Your task to perform on an android device: empty trash in google photos Image 0: 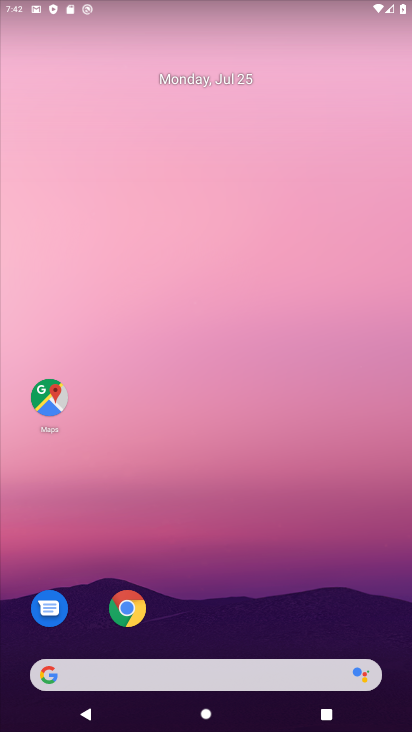
Step 0: drag from (133, 706) to (8, 46)
Your task to perform on an android device: empty trash in google photos Image 1: 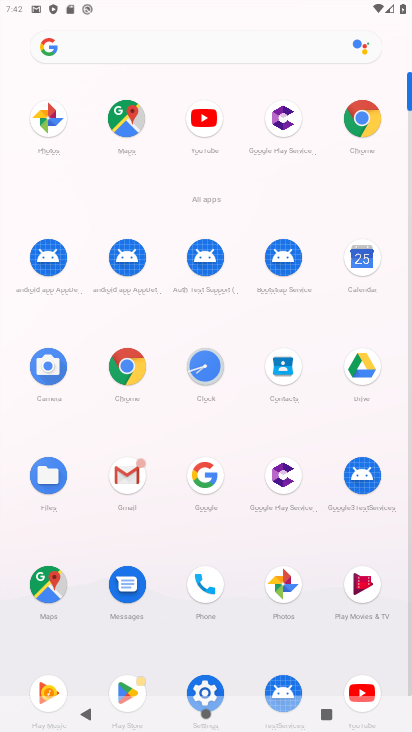
Step 1: click (285, 584)
Your task to perform on an android device: empty trash in google photos Image 2: 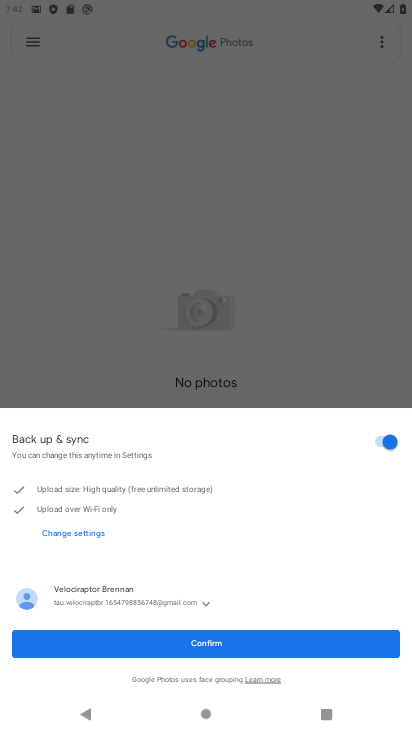
Step 2: click (180, 642)
Your task to perform on an android device: empty trash in google photos Image 3: 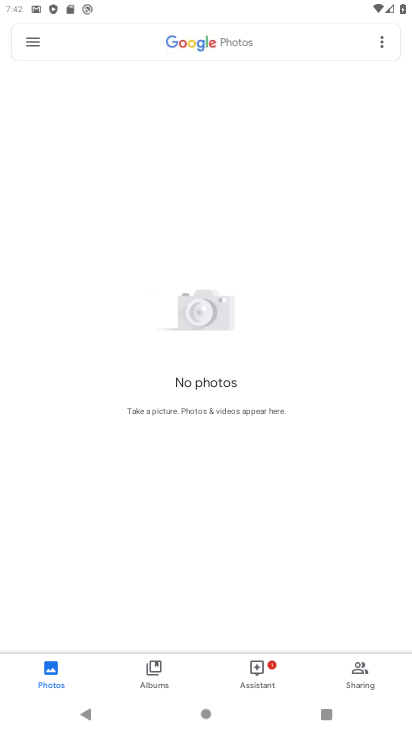
Step 3: click (34, 50)
Your task to perform on an android device: empty trash in google photos Image 4: 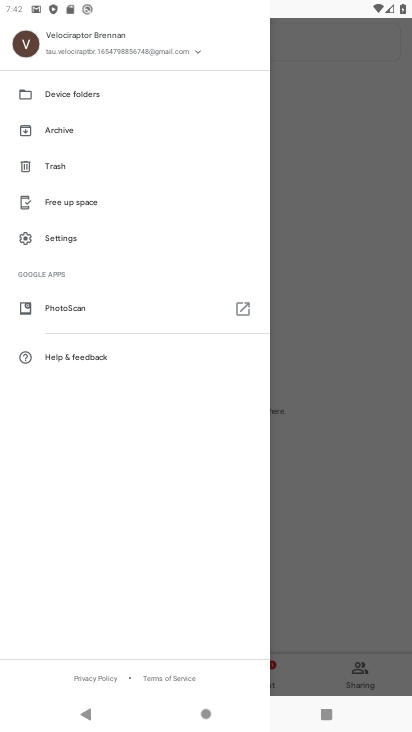
Step 4: click (61, 162)
Your task to perform on an android device: empty trash in google photos Image 5: 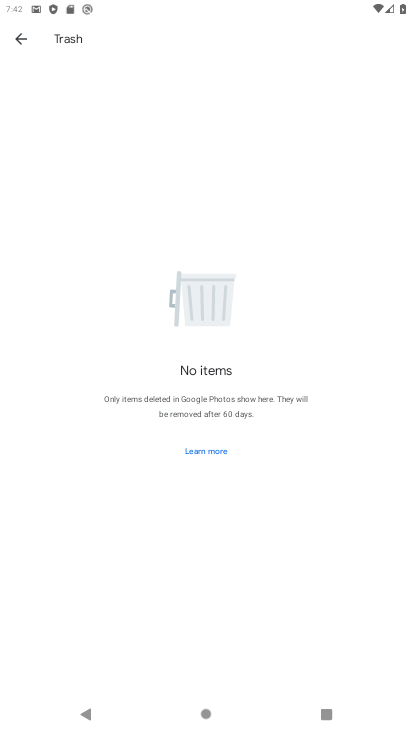
Step 5: task complete